Your task to perform on an android device: Open Chrome and go to the settings page Image 0: 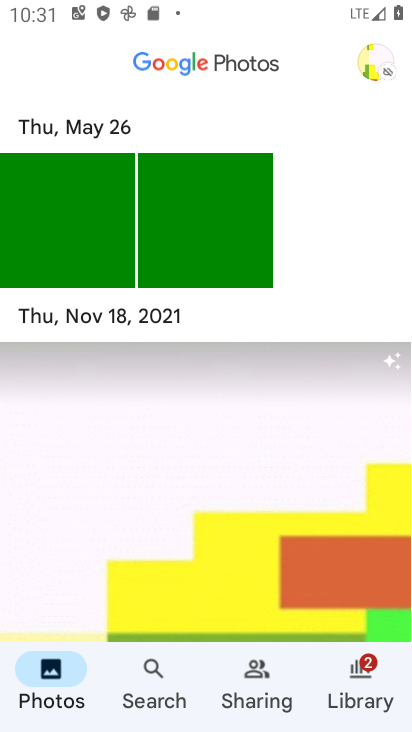
Step 0: press home button
Your task to perform on an android device: Open Chrome and go to the settings page Image 1: 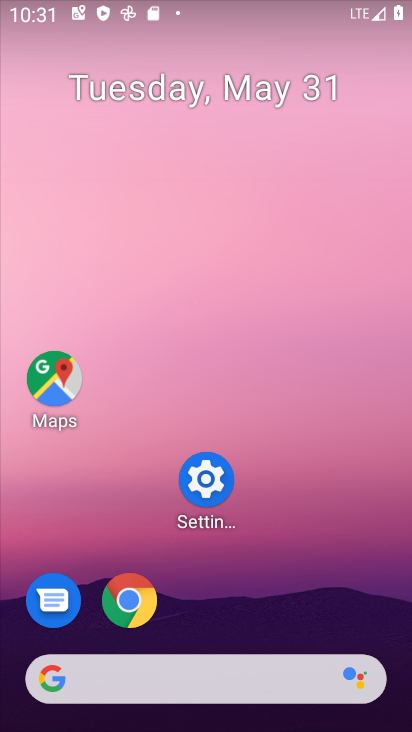
Step 1: click (133, 592)
Your task to perform on an android device: Open Chrome and go to the settings page Image 2: 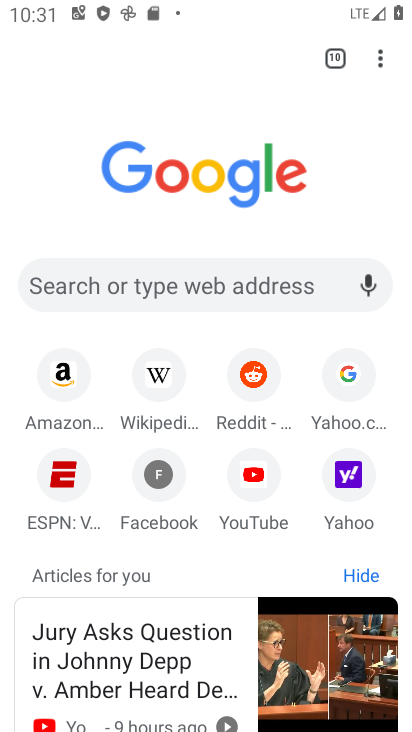
Step 2: click (376, 59)
Your task to perform on an android device: Open Chrome and go to the settings page Image 3: 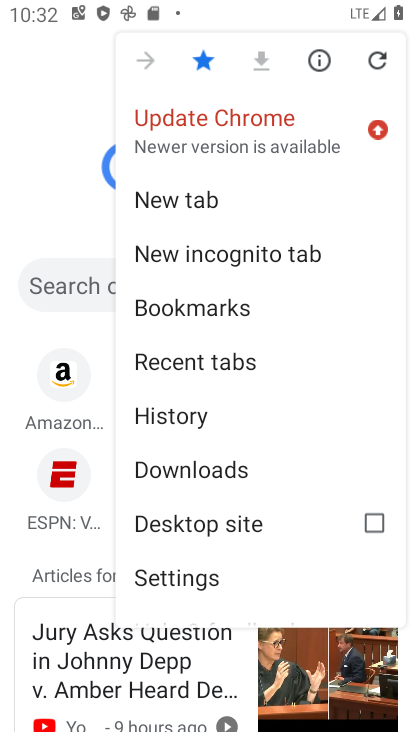
Step 3: click (196, 583)
Your task to perform on an android device: Open Chrome and go to the settings page Image 4: 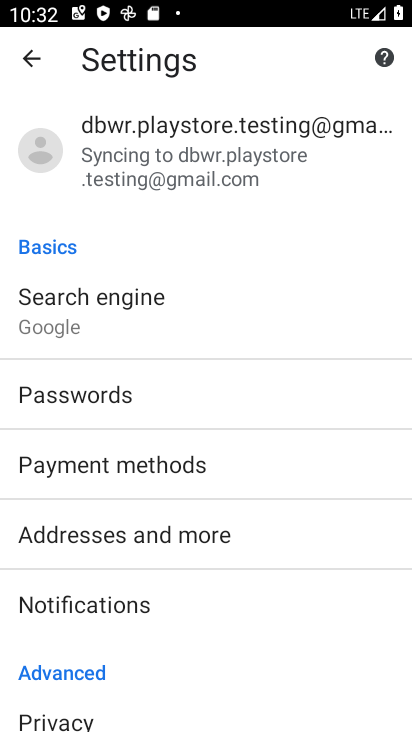
Step 4: task complete